Your task to perform on an android device: What is the news today? Image 0: 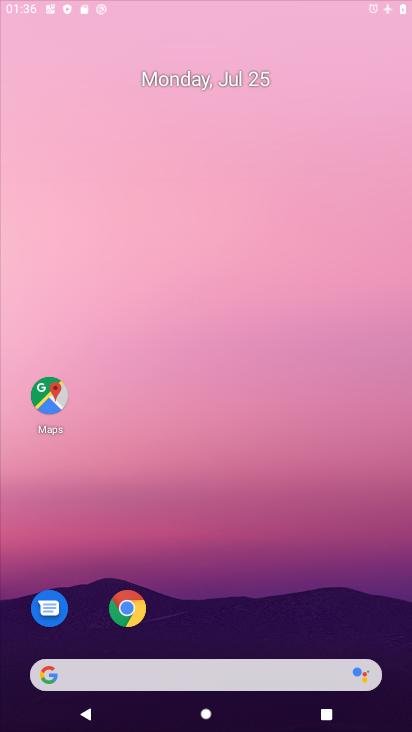
Step 0: drag from (241, 632) to (191, 44)
Your task to perform on an android device: What is the news today? Image 1: 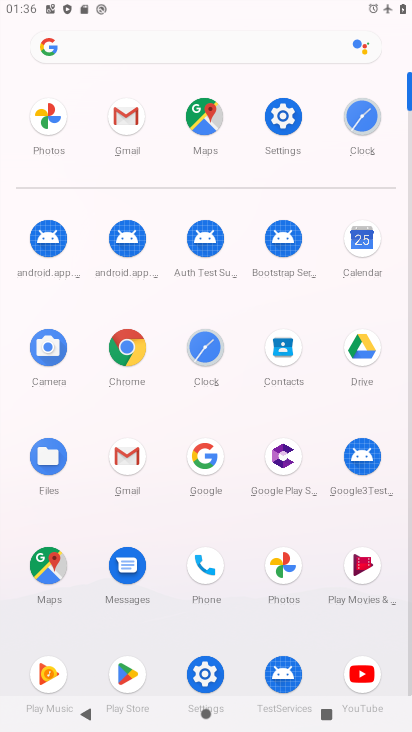
Step 1: click (206, 461)
Your task to perform on an android device: What is the news today? Image 2: 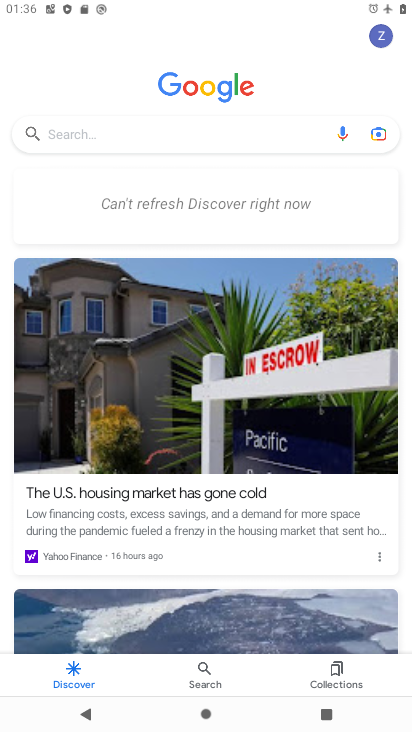
Step 2: click (179, 140)
Your task to perform on an android device: What is the news today? Image 3: 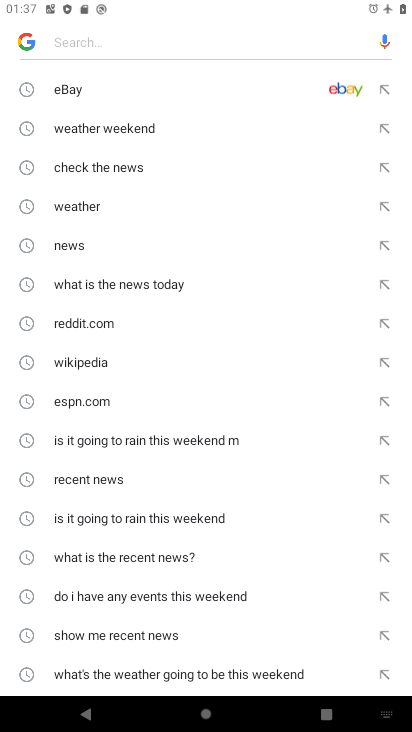
Step 3: click (84, 239)
Your task to perform on an android device: What is the news today? Image 4: 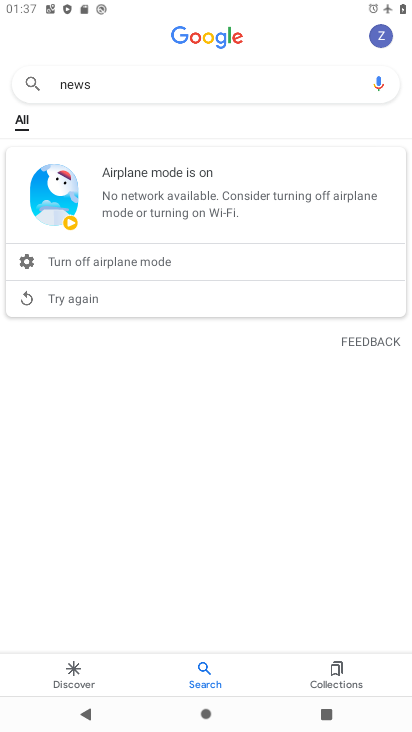
Step 4: task complete